Your task to perform on an android device: Open Youtube and go to "Your channel" Image 0: 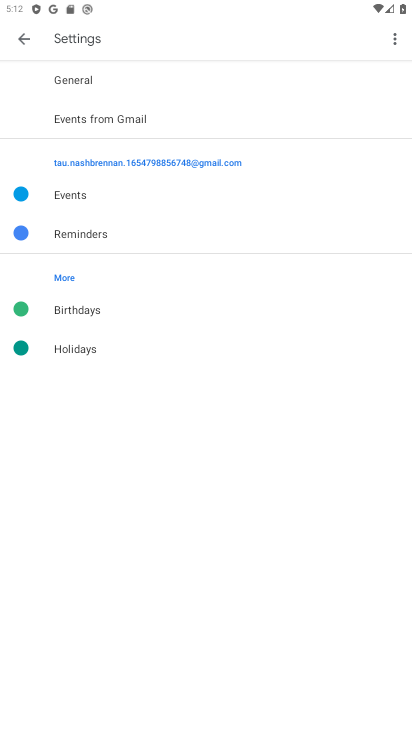
Step 0: press home button
Your task to perform on an android device: Open Youtube and go to "Your channel" Image 1: 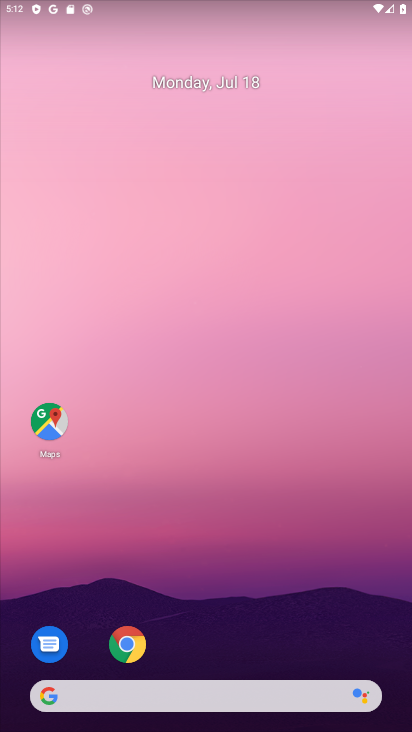
Step 1: drag from (247, 492) to (279, 28)
Your task to perform on an android device: Open Youtube and go to "Your channel" Image 2: 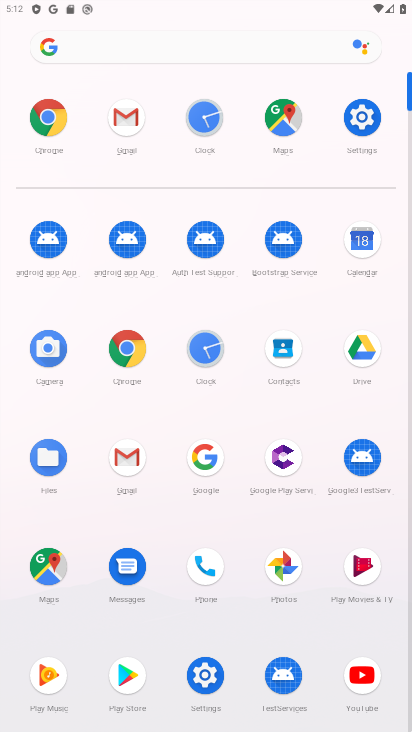
Step 2: click (359, 669)
Your task to perform on an android device: Open Youtube and go to "Your channel" Image 3: 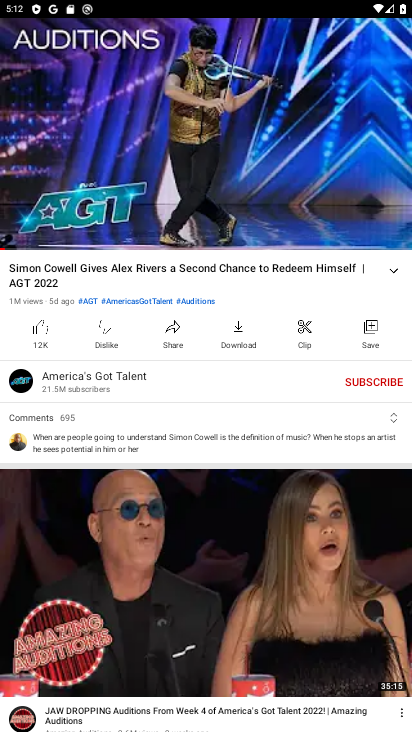
Step 3: press back button
Your task to perform on an android device: Open Youtube and go to "Your channel" Image 4: 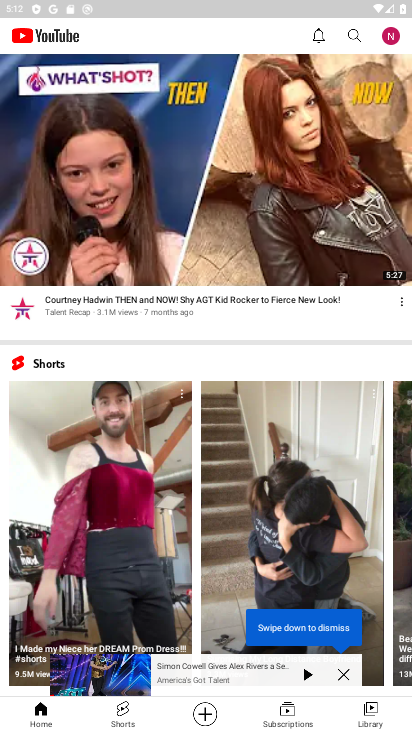
Step 4: click (380, 37)
Your task to perform on an android device: Open Youtube and go to "Your channel" Image 5: 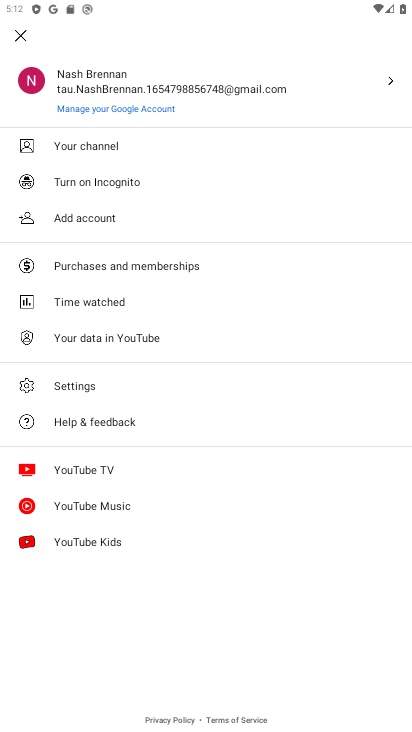
Step 5: click (97, 151)
Your task to perform on an android device: Open Youtube and go to "Your channel" Image 6: 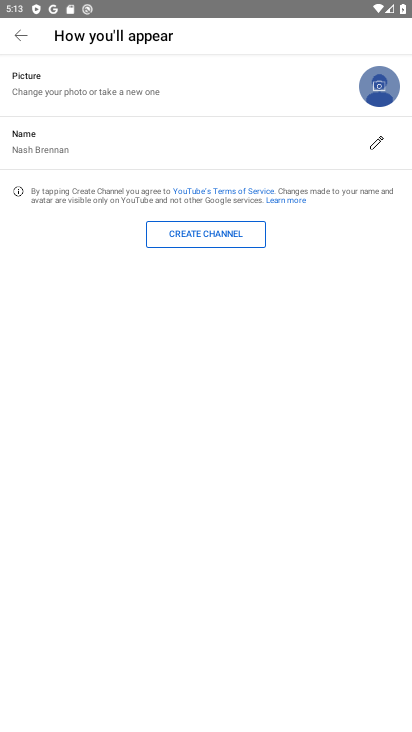
Step 6: task complete